Your task to perform on an android device: find photos in the google photos app Image 0: 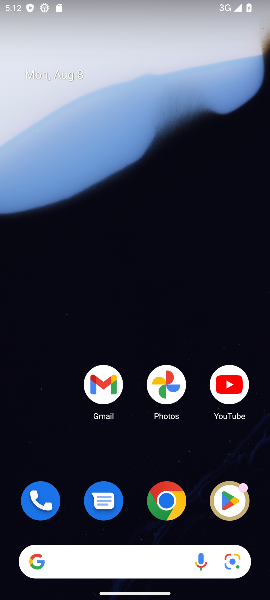
Step 0: click (165, 387)
Your task to perform on an android device: find photos in the google photos app Image 1: 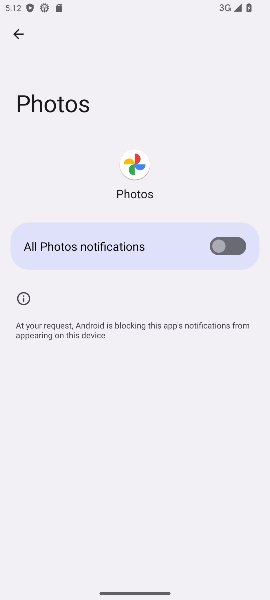
Step 1: click (19, 36)
Your task to perform on an android device: find photos in the google photos app Image 2: 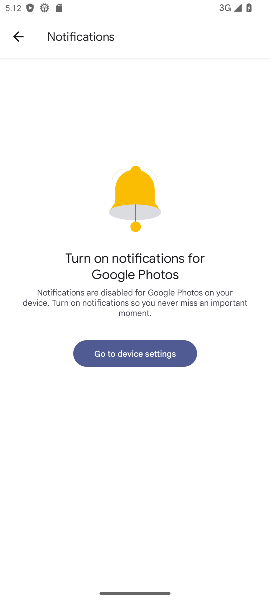
Step 2: click (19, 36)
Your task to perform on an android device: find photos in the google photos app Image 3: 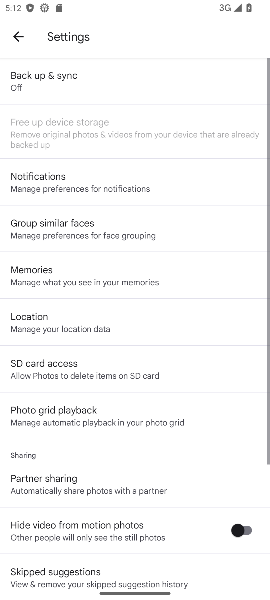
Step 3: click (19, 36)
Your task to perform on an android device: find photos in the google photos app Image 4: 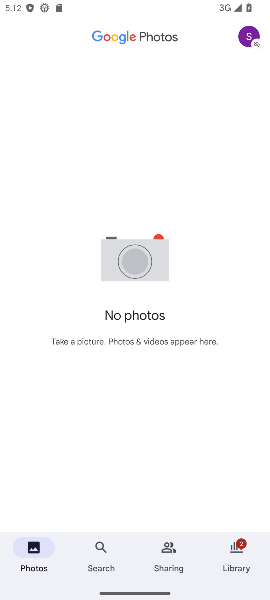
Step 4: task complete